Your task to perform on an android device: turn on improve location accuracy Image 0: 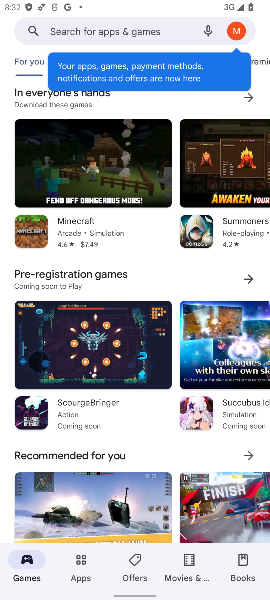
Step 0: press home button
Your task to perform on an android device: turn on improve location accuracy Image 1: 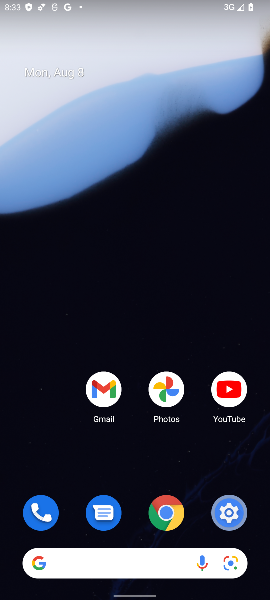
Step 1: click (219, 519)
Your task to perform on an android device: turn on improve location accuracy Image 2: 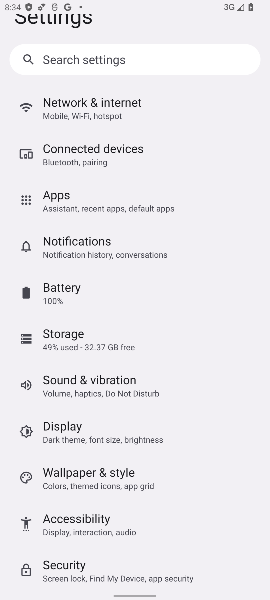
Step 2: drag from (142, 433) to (146, 120)
Your task to perform on an android device: turn on improve location accuracy Image 3: 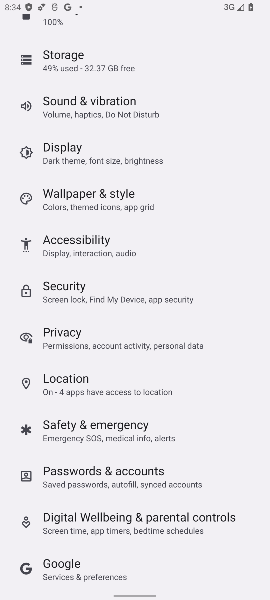
Step 3: click (117, 383)
Your task to perform on an android device: turn on improve location accuracy Image 4: 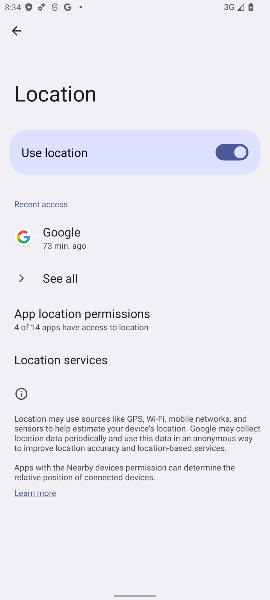
Step 4: click (107, 368)
Your task to perform on an android device: turn on improve location accuracy Image 5: 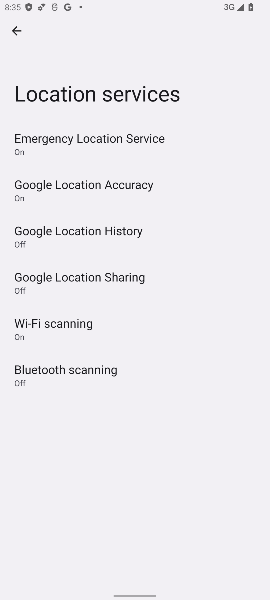
Step 5: click (133, 180)
Your task to perform on an android device: turn on improve location accuracy Image 6: 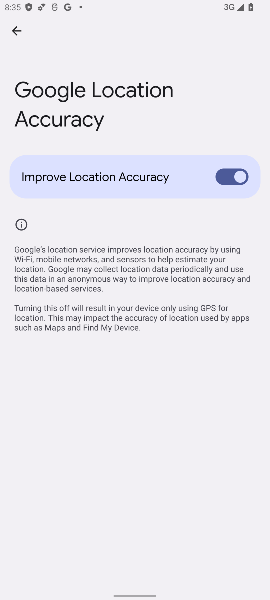
Step 6: task complete